Your task to perform on an android device: turn notification dots off Image 0: 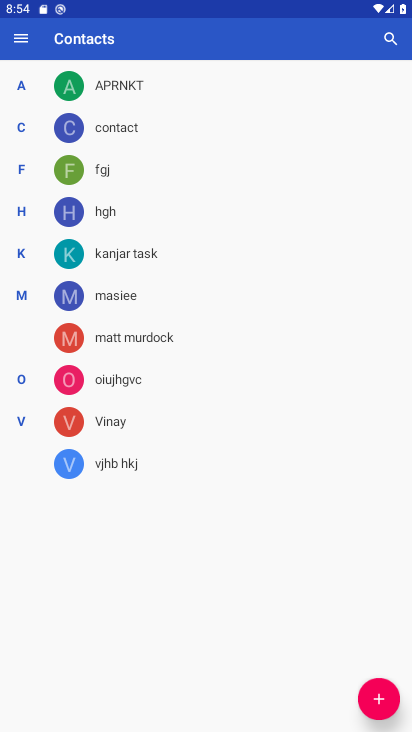
Step 0: press home button
Your task to perform on an android device: turn notification dots off Image 1: 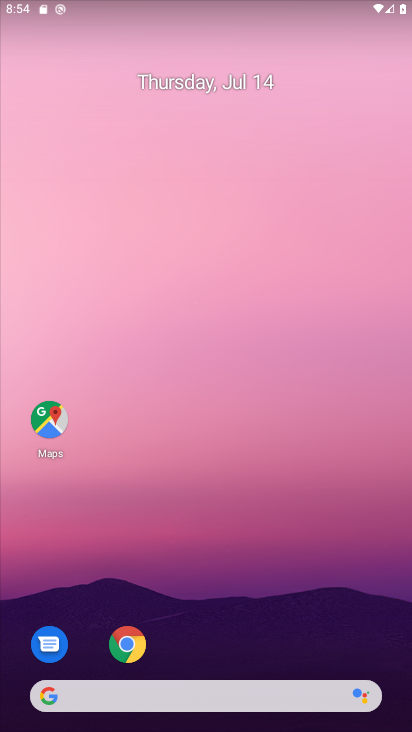
Step 1: drag from (389, 203) to (398, 155)
Your task to perform on an android device: turn notification dots off Image 2: 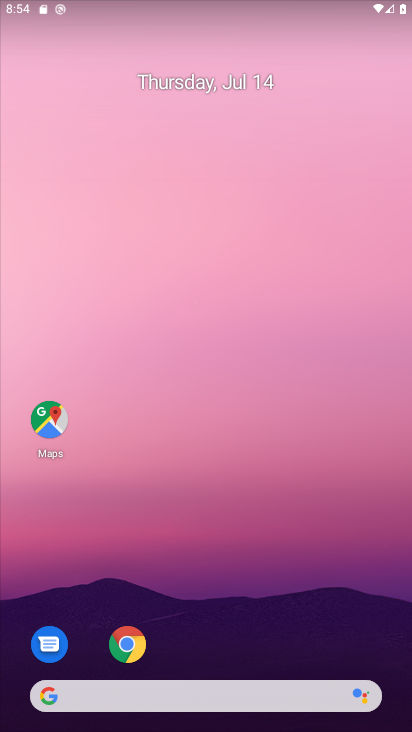
Step 2: drag from (178, 697) to (391, 1)
Your task to perform on an android device: turn notification dots off Image 3: 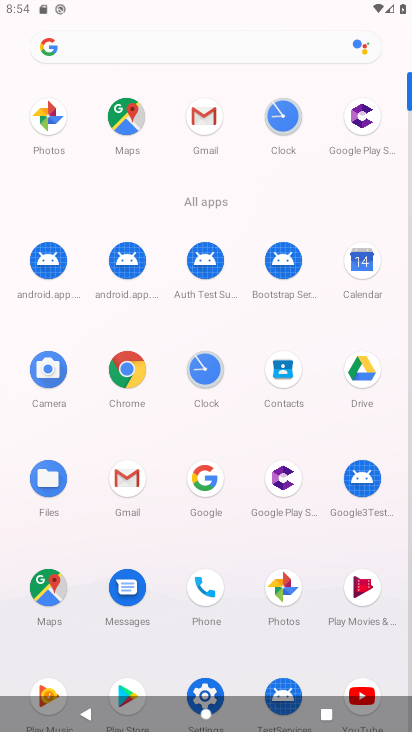
Step 3: drag from (189, 657) to (223, 242)
Your task to perform on an android device: turn notification dots off Image 4: 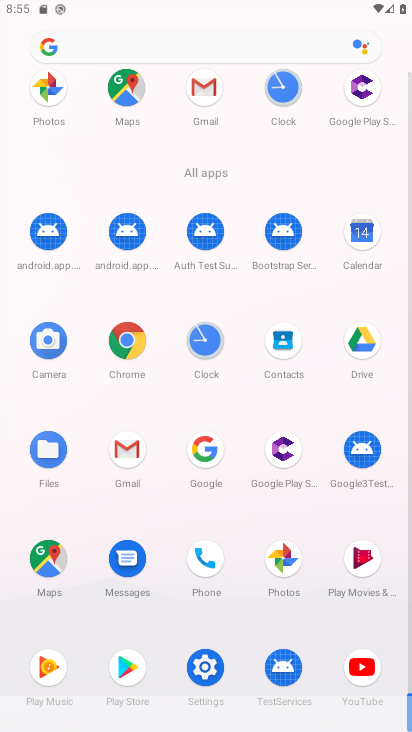
Step 4: click (202, 660)
Your task to perform on an android device: turn notification dots off Image 5: 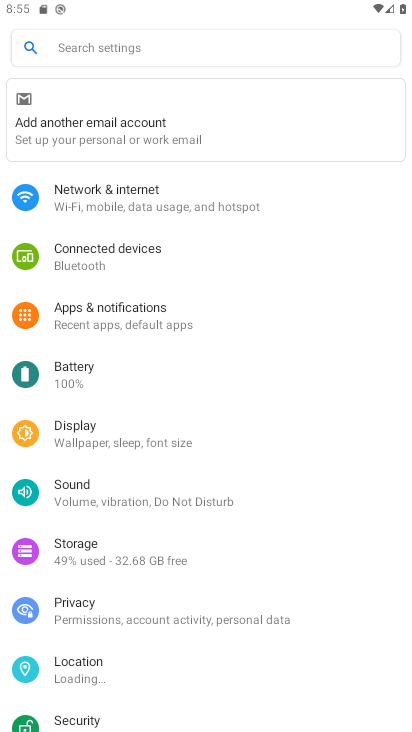
Step 5: click (135, 317)
Your task to perform on an android device: turn notification dots off Image 6: 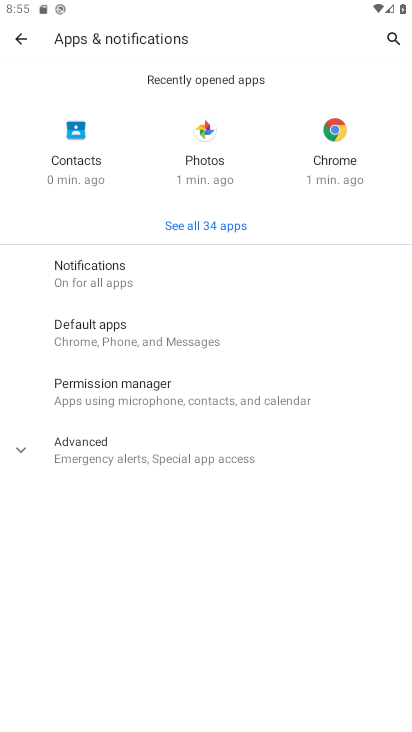
Step 6: click (145, 279)
Your task to perform on an android device: turn notification dots off Image 7: 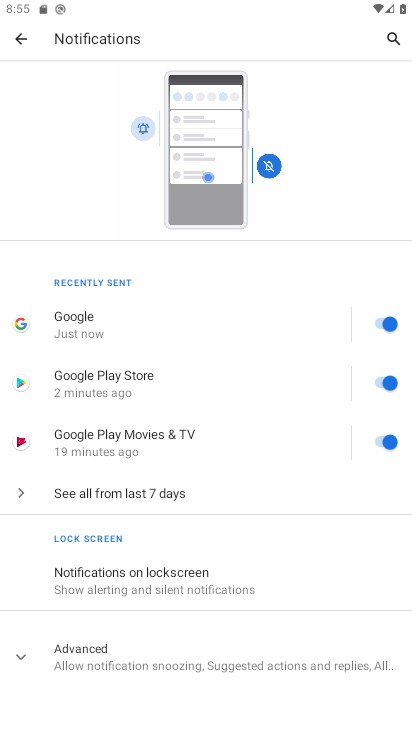
Step 7: click (105, 653)
Your task to perform on an android device: turn notification dots off Image 8: 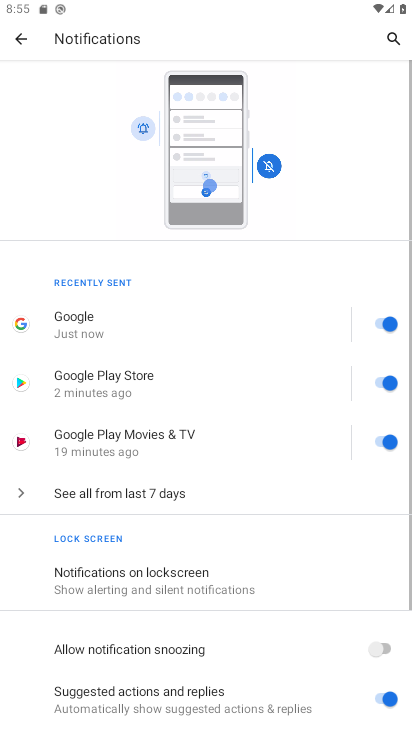
Step 8: drag from (231, 656) to (326, 253)
Your task to perform on an android device: turn notification dots off Image 9: 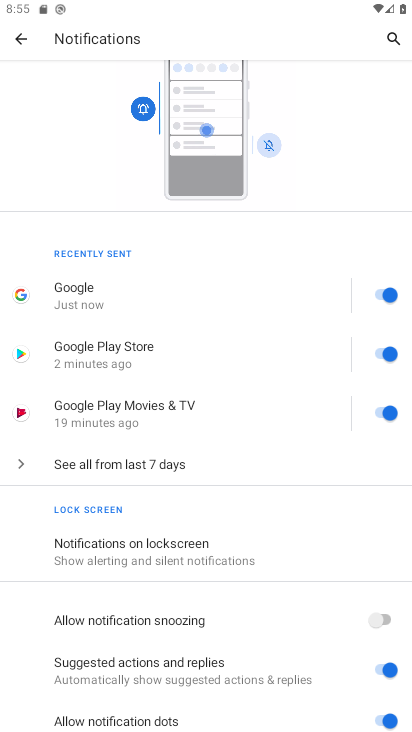
Step 9: click (381, 723)
Your task to perform on an android device: turn notification dots off Image 10: 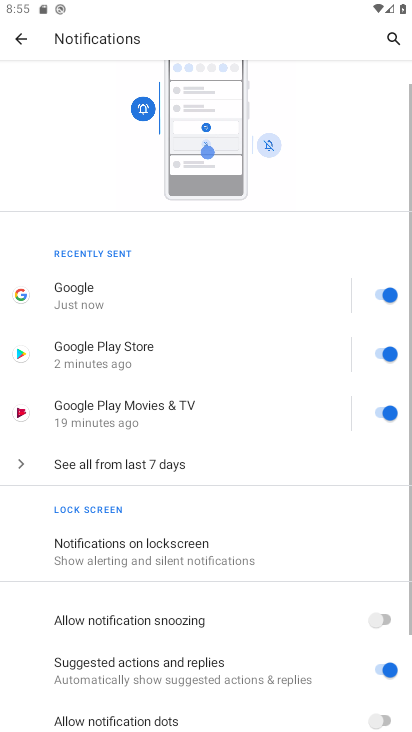
Step 10: task complete